Your task to perform on an android device: check android version Image 0: 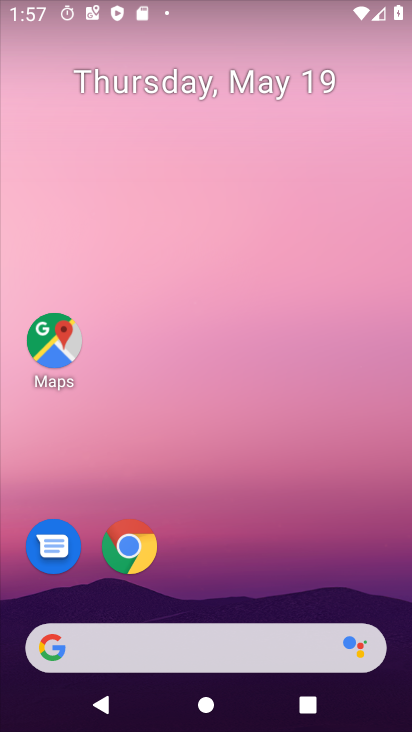
Step 0: drag from (144, 602) to (207, 72)
Your task to perform on an android device: check android version Image 1: 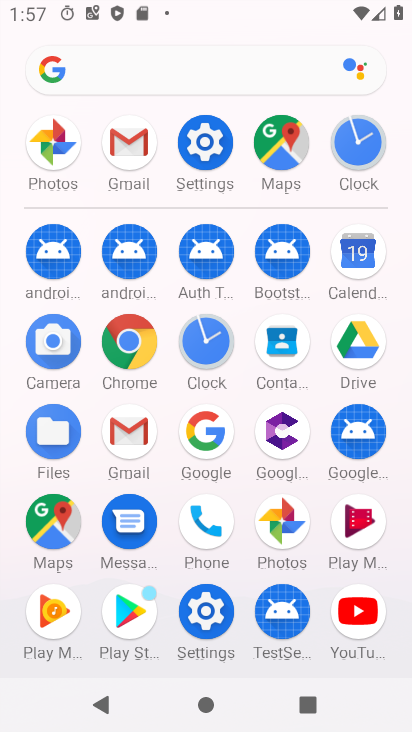
Step 1: click (197, 127)
Your task to perform on an android device: check android version Image 2: 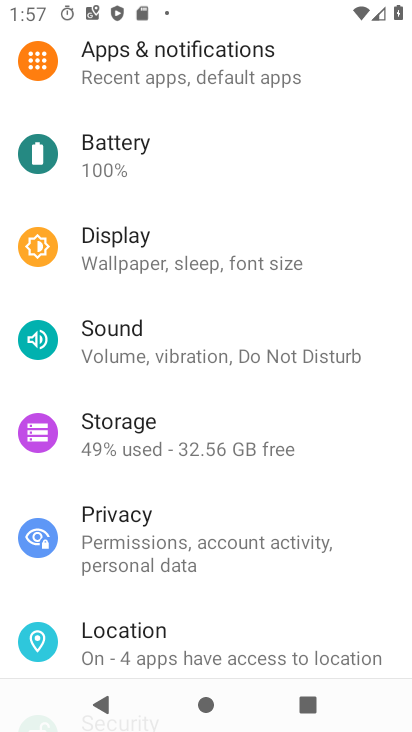
Step 2: drag from (94, 594) to (155, 1)
Your task to perform on an android device: check android version Image 3: 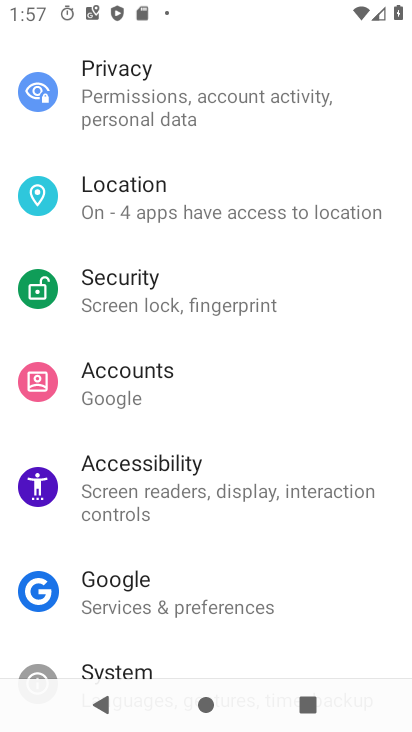
Step 3: drag from (134, 652) to (285, 25)
Your task to perform on an android device: check android version Image 4: 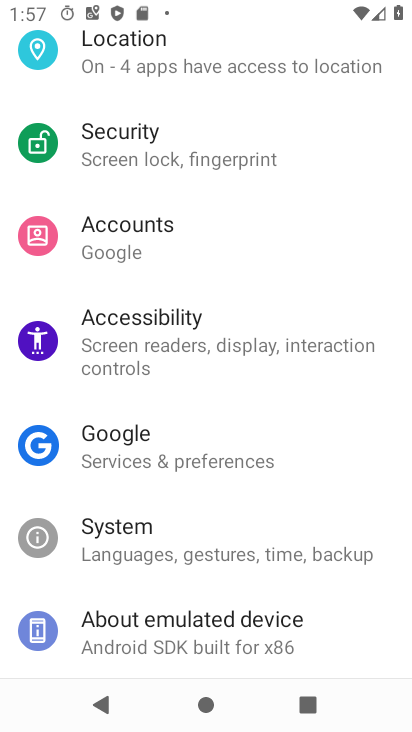
Step 4: click (143, 645)
Your task to perform on an android device: check android version Image 5: 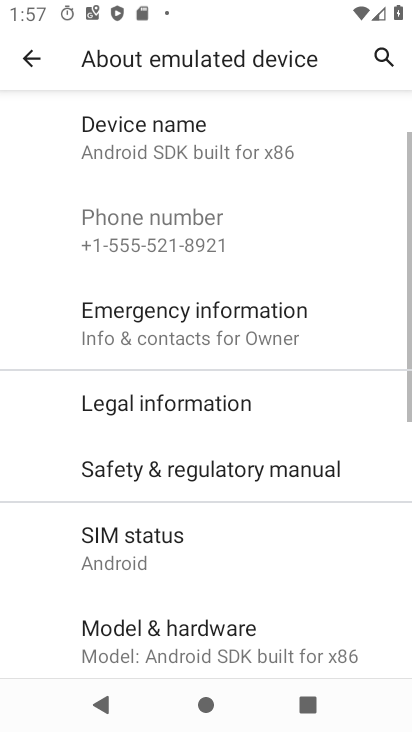
Step 5: drag from (86, 597) to (206, 151)
Your task to perform on an android device: check android version Image 6: 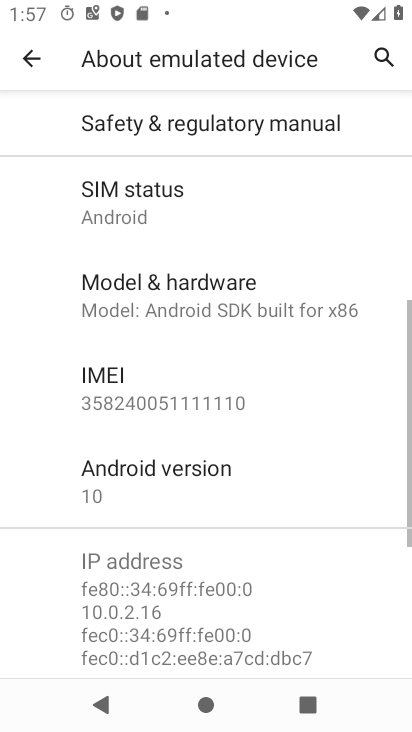
Step 6: click (121, 493)
Your task to perform on an android device: check android version Image 7: 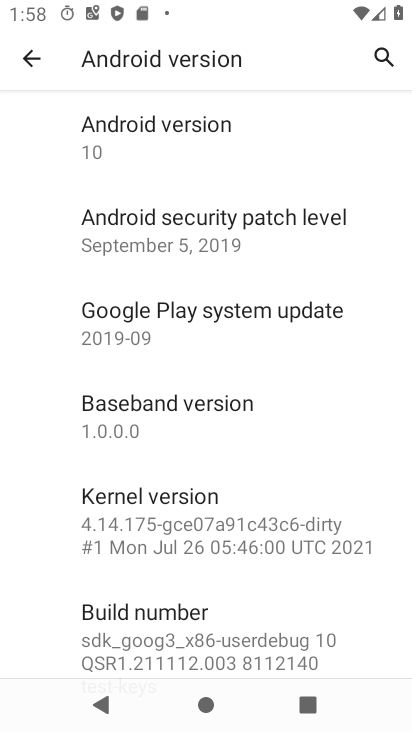
Step 7: task complete